Your task to perform on an android device: open chrome privacy settings Image 0: 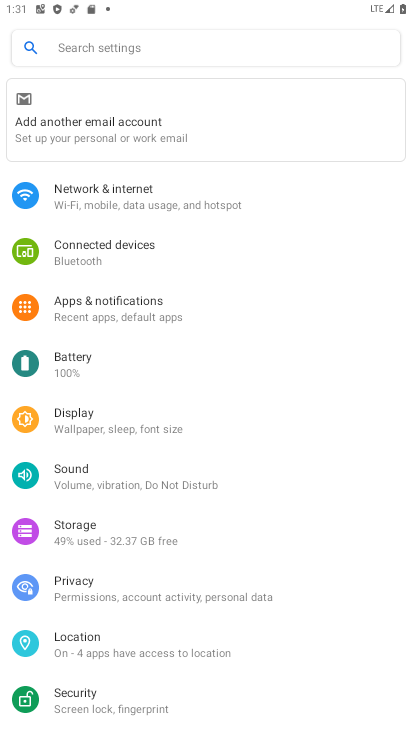
Step 0: press home button
Your task to perform on an android device: open chrome privacy settings Image 1: 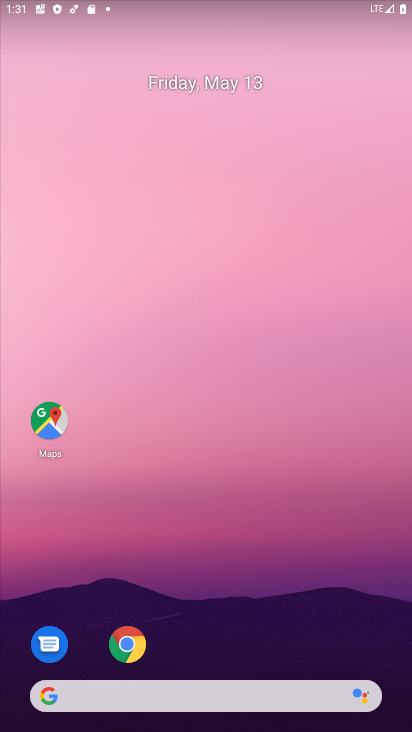
Step 1: drag from (276, 648) to (225, 133)
Your task to perform on an android device: open chrome privacy settings Image 2: 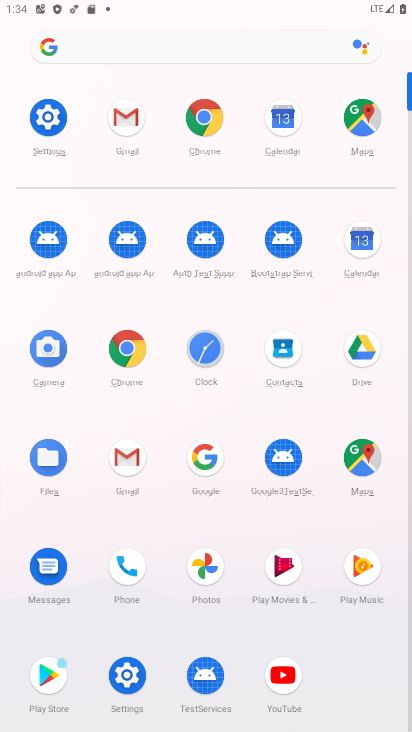
Step 2: click (124, 366)
Your task to perform on an android device: open chrome privacy settings Image 3: 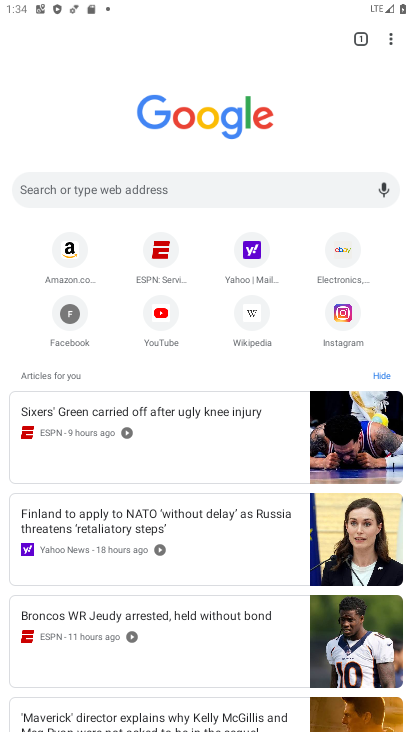
Step 3: click (391, 40)
Your task to perform on an android device: open chrome privacy settings Image 4: 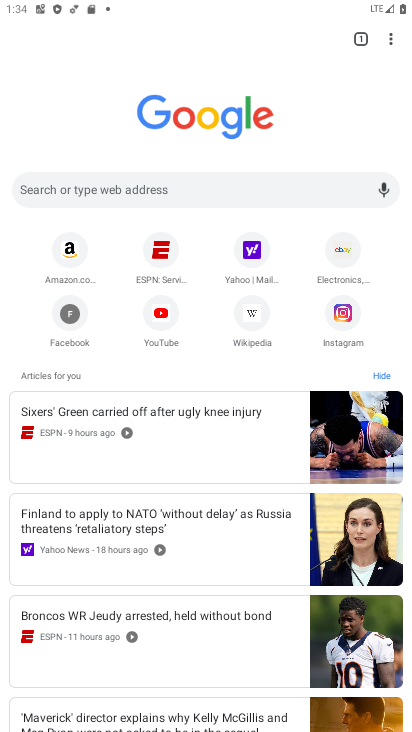
Step 4: click (391, 40)
Your task to perform on an android device: open chrome privacy settings Image 5: 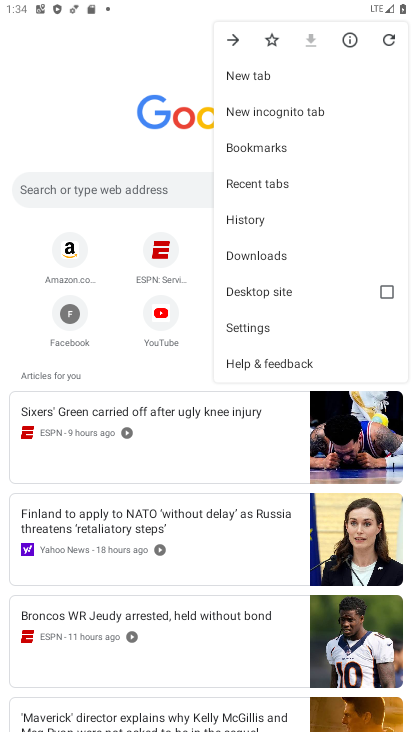
Step 5: click (274, 323)
Your task to perform on an android device: open chrome privacy settings Image 6: 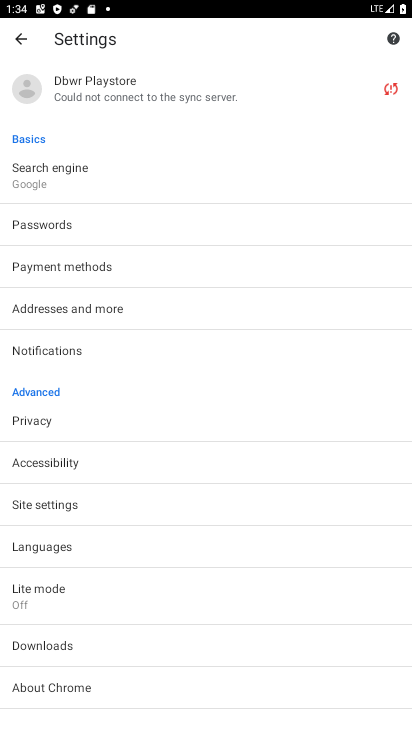
Step 6: click (107, 425)
Your task to perform on an android device: open chrome privacy settings Image 7: 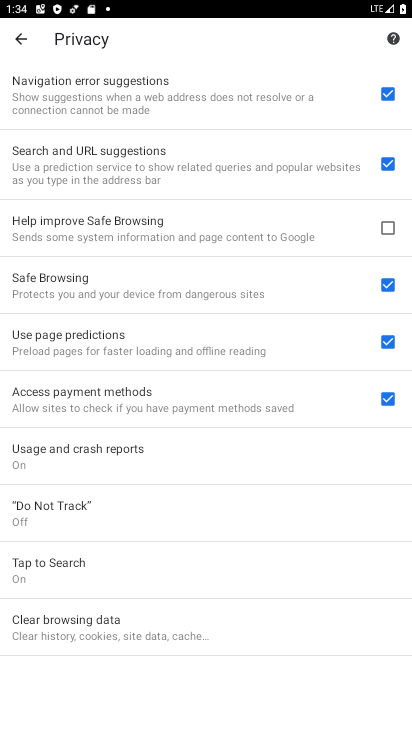
Step 7: task complete